Your task to perform on an android device: allow notifications from all sites in the chrome app Image 0: 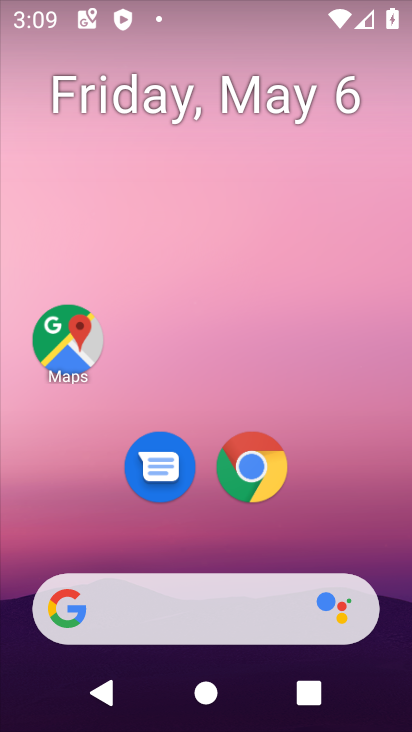
Step 0: click (254, 491)
Your task to perform on an android device: allow notifications from all sites in the chrome app Image 1: 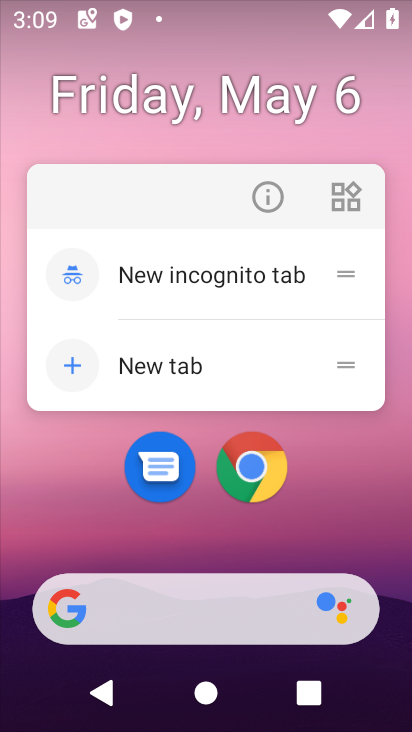
Step 1: click (254, 473)
Your task to perform on an android device: allow notifications from all sites in the chrome app Image 2: 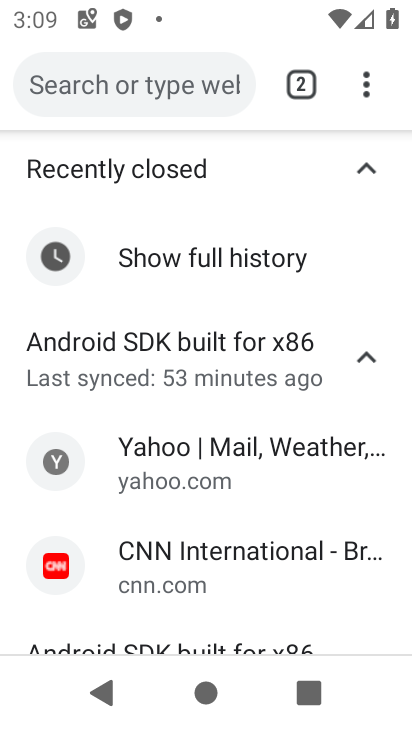
Step 2: drag from (359, 77) to (88, 514)
Your task to perform on an android device: allow notifications from all sites in the chrome app Image 3: 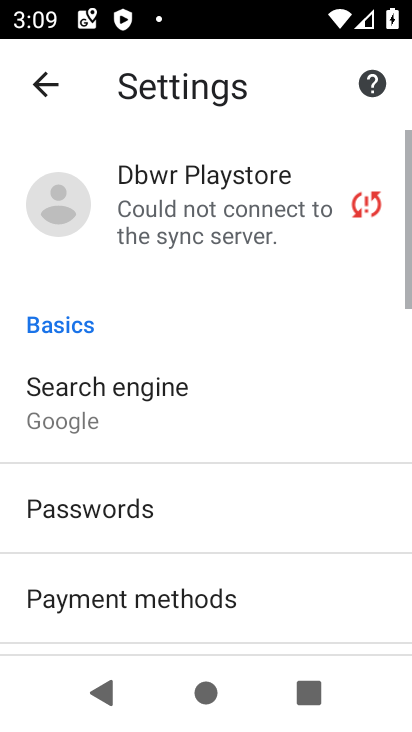
Step 3: drag from (148, 548) to (309, 147)
Your task to perform on an android device: allow notifications from all sites in the chrome app Image 4: 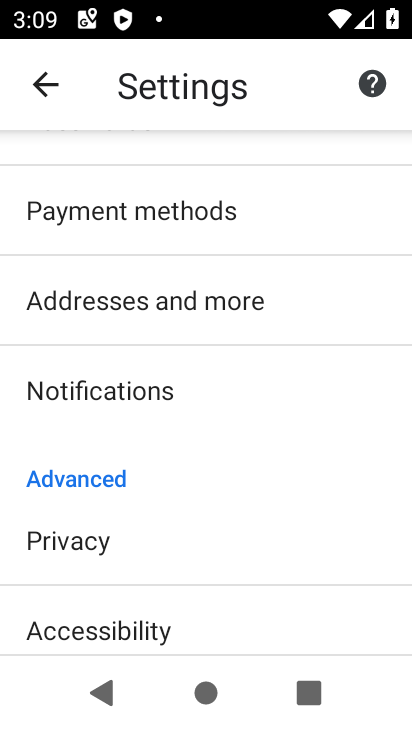
Step 4: drag from (205, 556) to (303, 182)
Your task to perform on an android device: allow notifications from all sites in the chrome app Image 5: 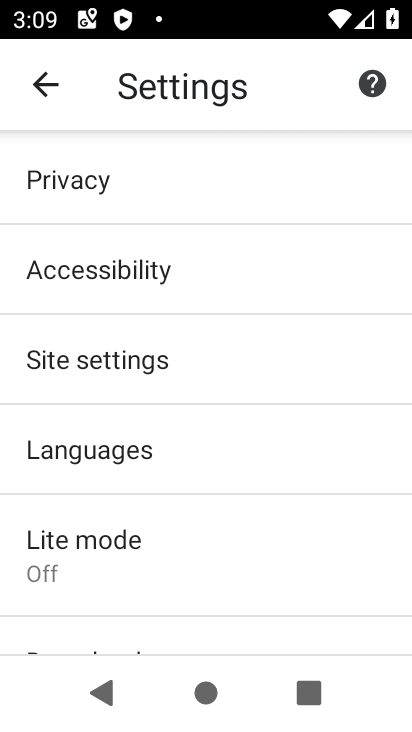
Step 5: click (92, 358)
Your task to perform on an android device: allow notifications from all sites in the chrome app Image 6: 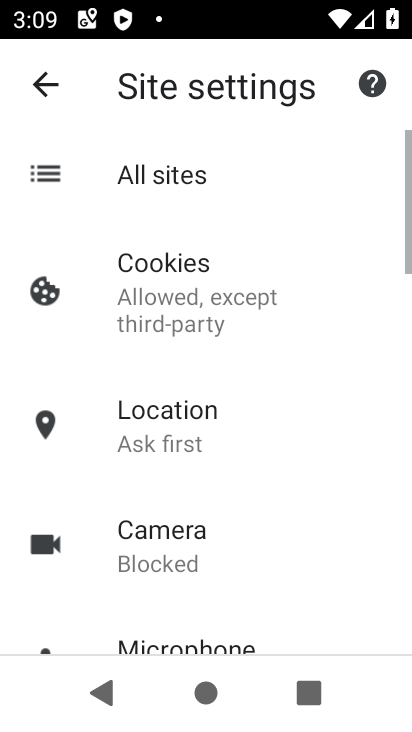
Step 6: drag from (167, 592) to (304, 93)
Your task to perform on an android device: allow notifications from all sites in the chrome app Image 7: 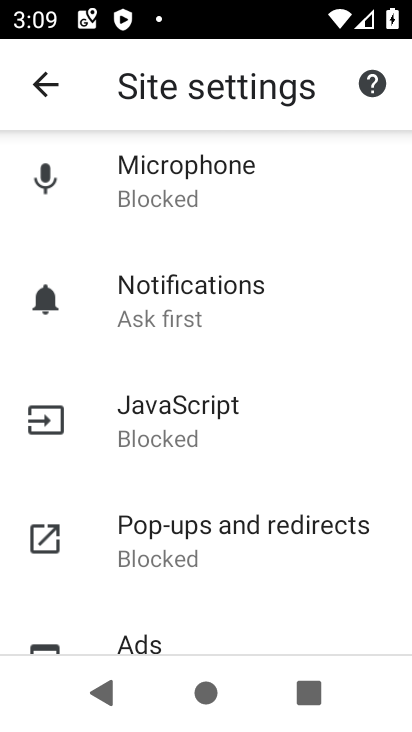
Step 7: drag from (208, 545) to (210, 584)
Your task to perform on an android device: allow notifications from all sites in the chrome app Image 8: 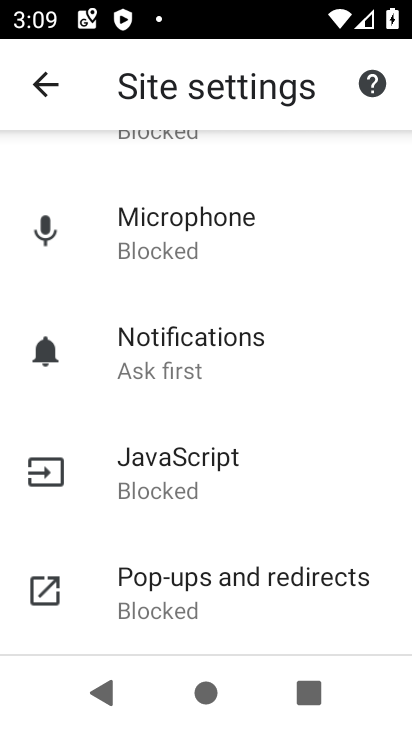
Step 8: click (174, 360)
Your task to perform on an android device: allow notifications from all sites in the chrome app Image 9: 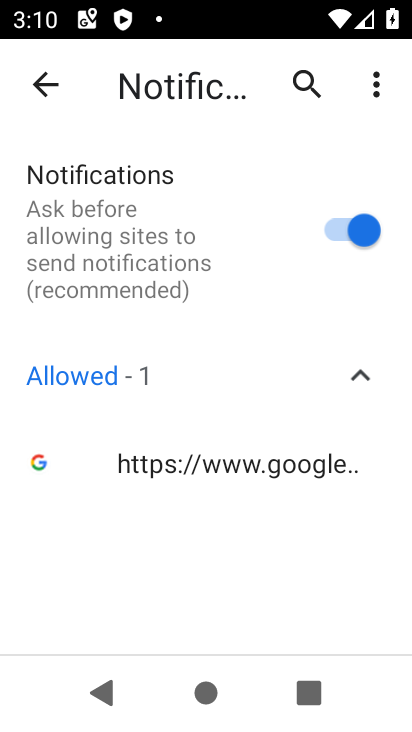
Step 9: task complete